Your task to perform on an android device: check the backup settings in the google photos Image 0: 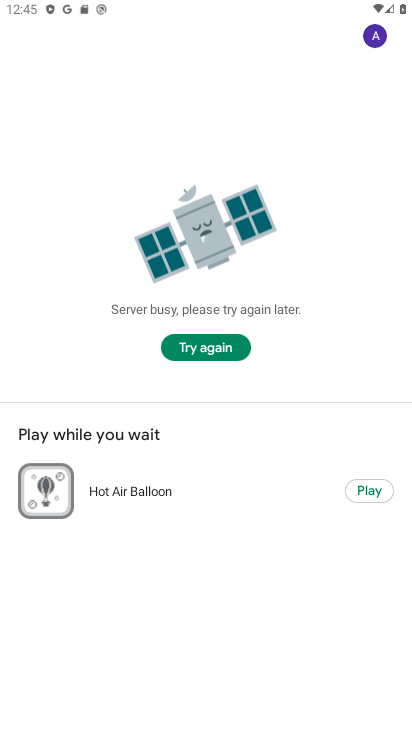
Step 0: press home button
Your task to perform on an android device: check the backup settings in the google photos Image 1: 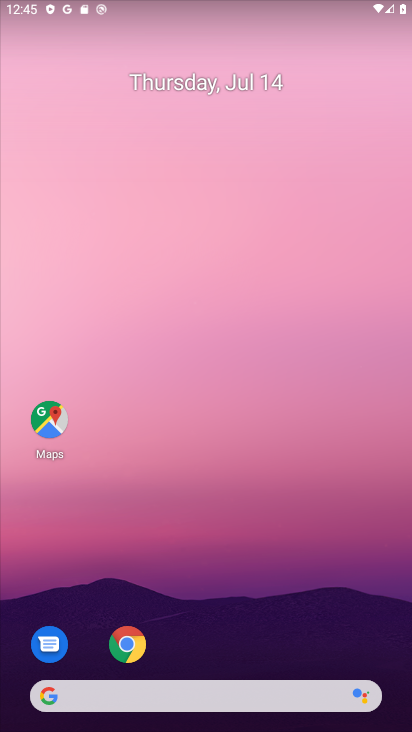
Step 1: drag from (193, 675) to (228, 226)
Your task to perform on an android device: check the backup settings in the google photos Image 2: 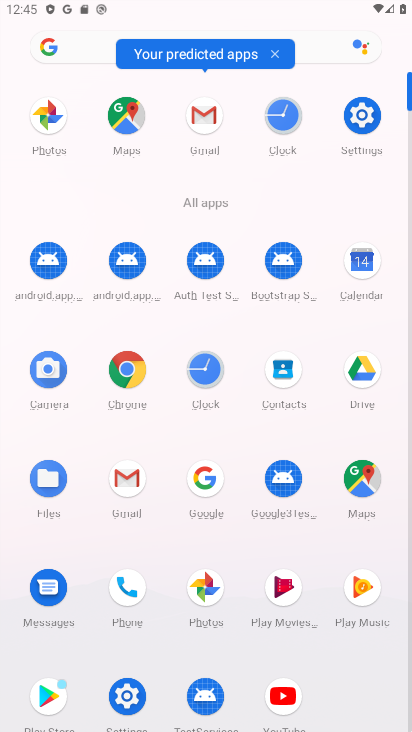
Step 2: click (208, 573)
Your task to perform on an android device: check the backup settings in the google photos Image 3: 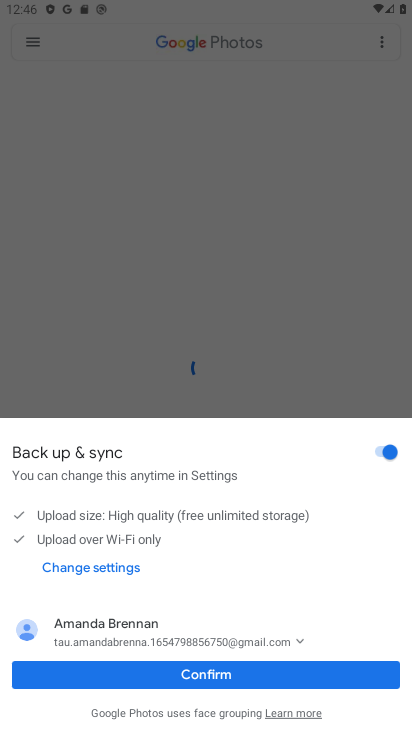
Step 3: click (193, 661)
Your task to perform on an android device: check the backup settings in the google photos Image 4: 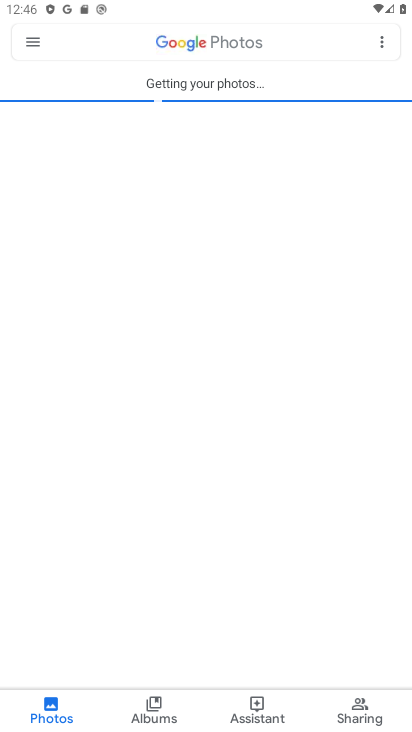
Step 4: click (34, 46)
Your task to perform on an android device: check the backup settings in the google photos Image 5: 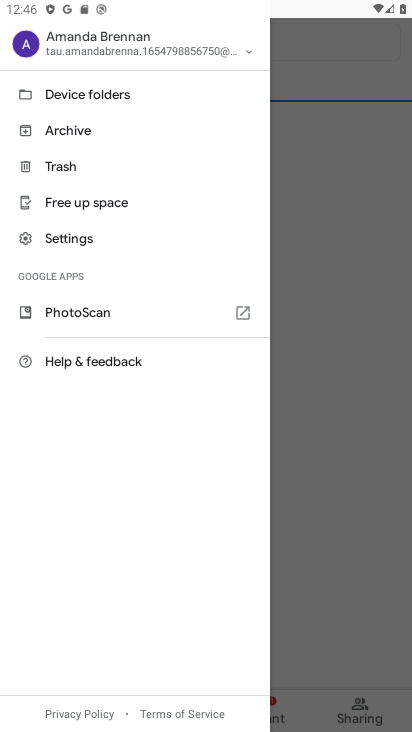
Step 5: click (119, 238)
Your task to perform on an android device: check the backup settings in the google photos Image 6: 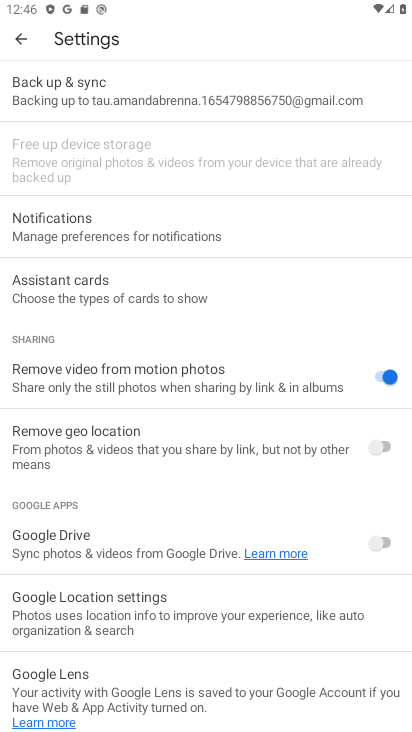
Step 6: click (120, 102)
Your task to perform on an android device: check the backup settings in the google photos Image 7: 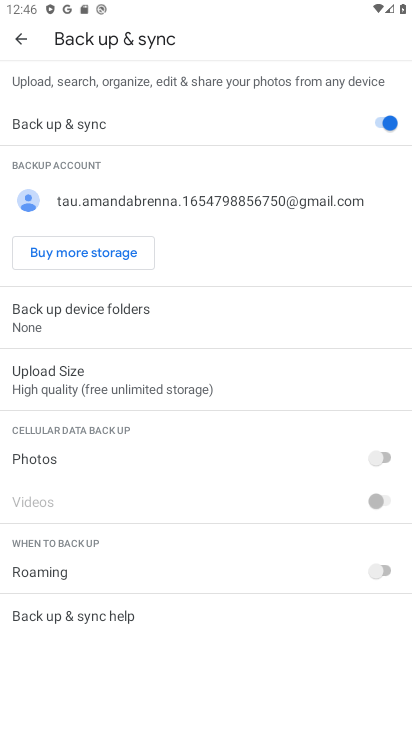
Step 7: task complete